Your task to perform on an android device: turn off location history Image 0: 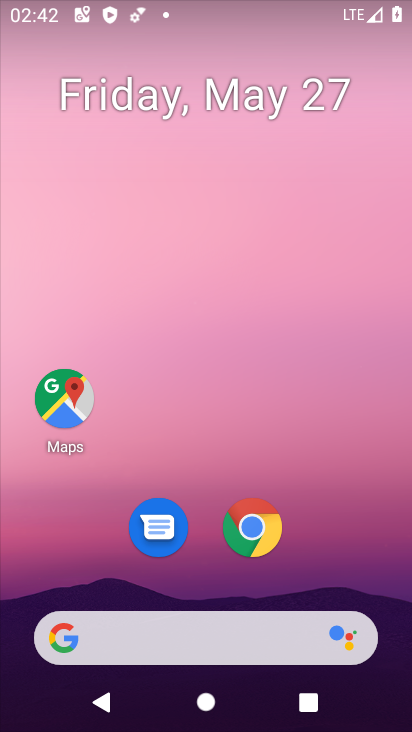
Step 0: drag from (184, 560) to (165, 10)
Your task to perform on an android device: turn off location history Image 1: 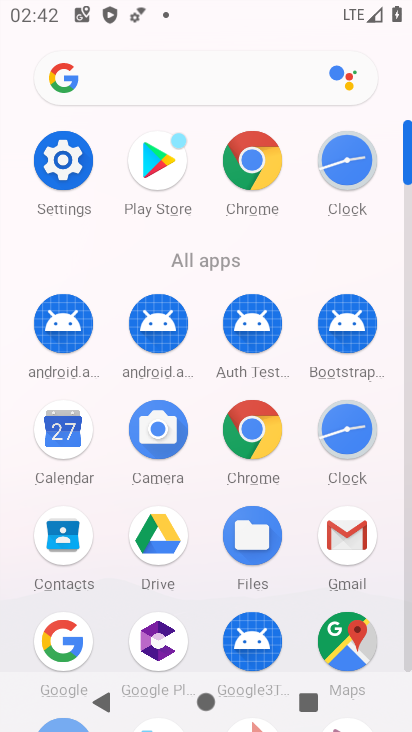
Step 1: click (77, 170)
Your task to perform on an android device: turn off location history Image 2: 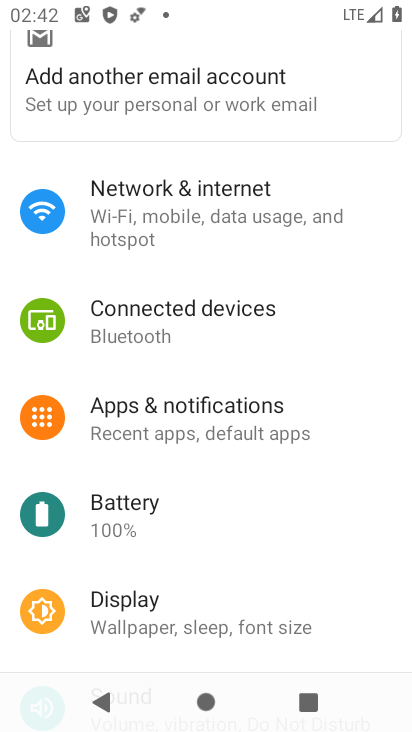
Step 2: drag from (181, 596) to (159, 303)
Your task to perform on an android device: turn off location history Image 3: 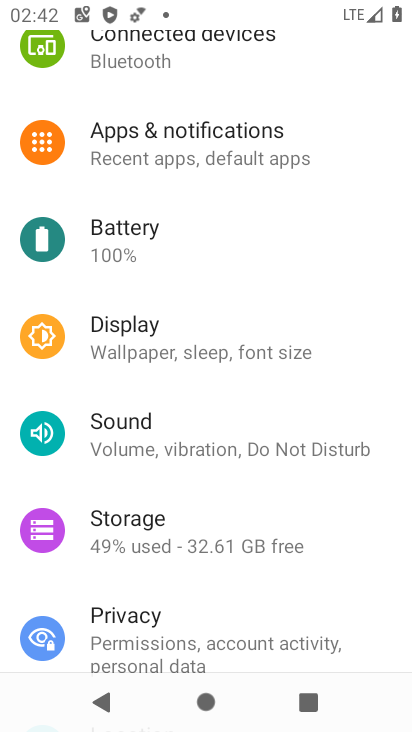
Step 3: drag from (157, 634) to (166, 330)
Your task to perform on an android device: turn off location history Image 4: 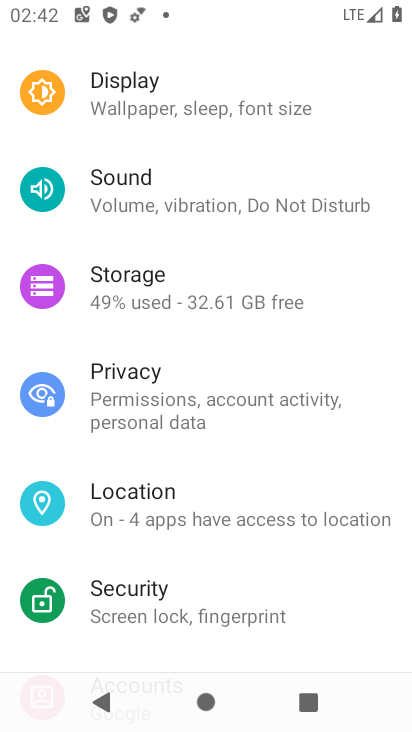
Step 4: click (157, 502)
Your task to perform on an android device: turn off location history Image 5: 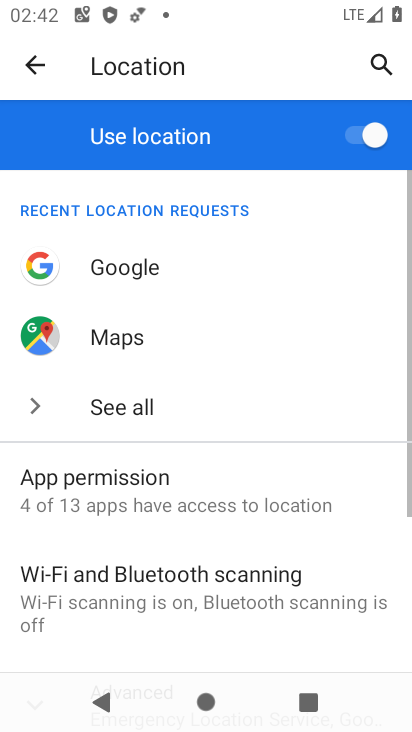
Step 5: drag from (127, 618) to (91, 405)
Your task to perform on an android device: turn off location history Image 6: 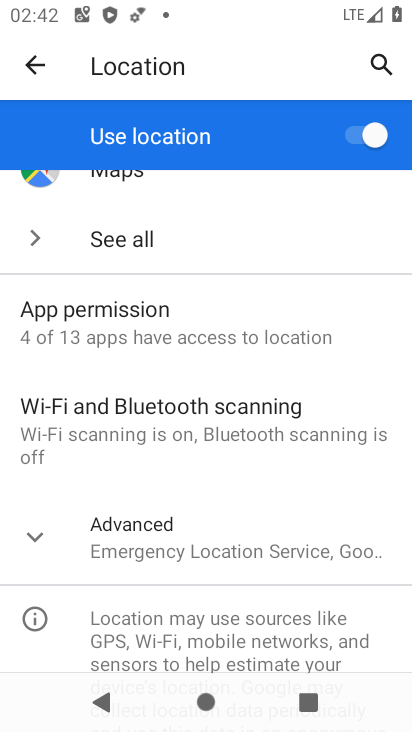
Step 6: click (105, 538)
Your task to perform on an android device: turn off location history Image 7: 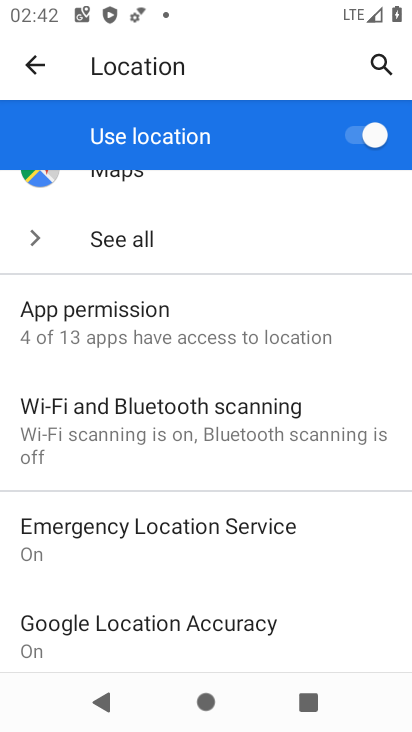
Step 7: drag from (114, 596) to (105, 484)
Your task to perform on an android device: turn off location history Image 8: 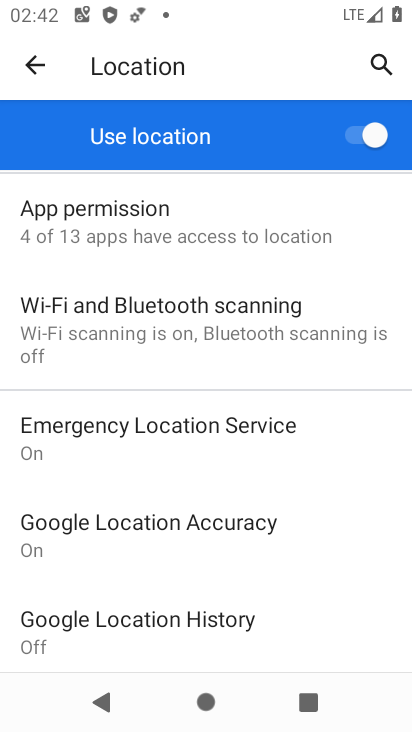
Step 8: drag from (83, 626) to (72, 481)
Your task to perform on an android device: turn off location history Image 9: 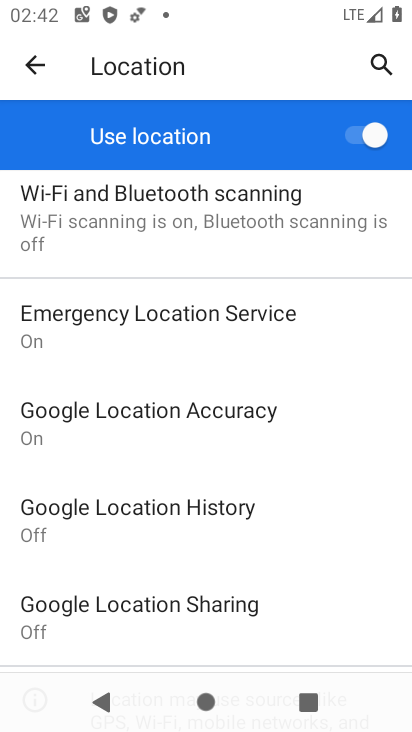
Step 9: click (103, 512)
Your task to perform on an android device: turn off location history Image 10: 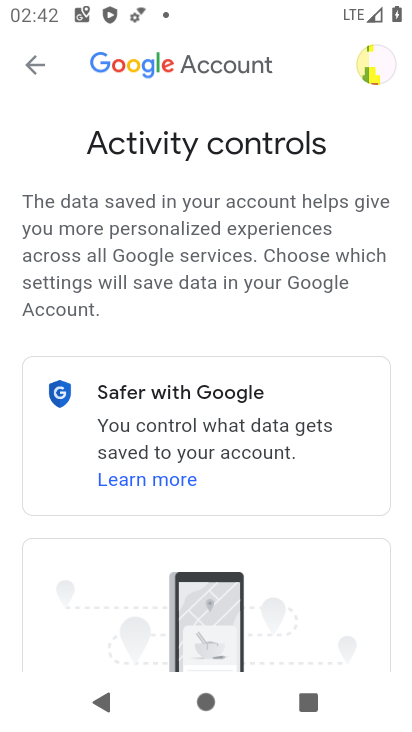
Step 10: task complete